Your task to perform on an android device: Open Youtube and go to the subscriptions tab Image 0: 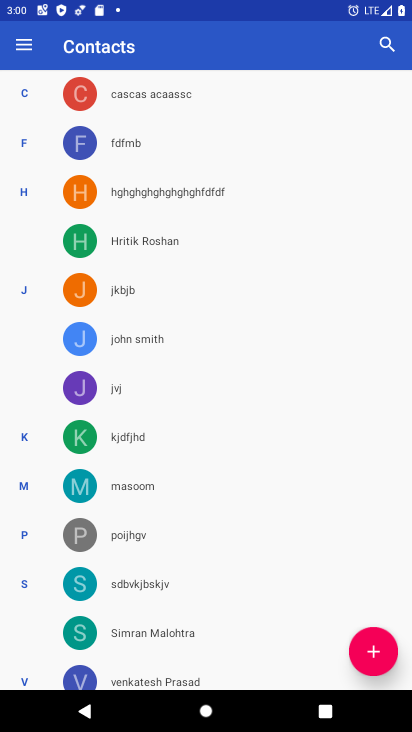
Step 0: press home button
Your task to perform on an android device: Open Youtube and go to the subscriptions tab Image 1: 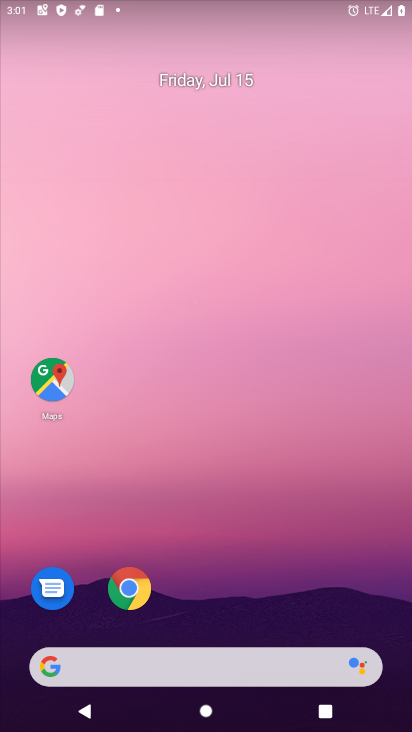
Step 1: drag from (216, 671) to (220, 124)
Your task to perform on an android device: Open Youtube and go to the subscriptions tab Image 2: 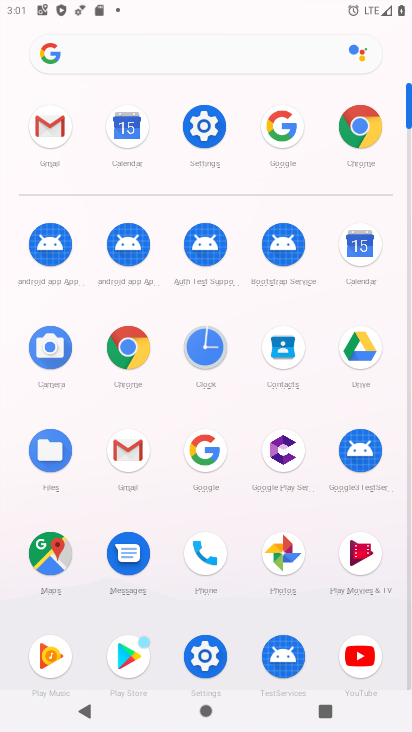
Step 2: click (359, 657)
Your task to perform on an android device: Open Youtube and go to the subscriptions tab Image 3: 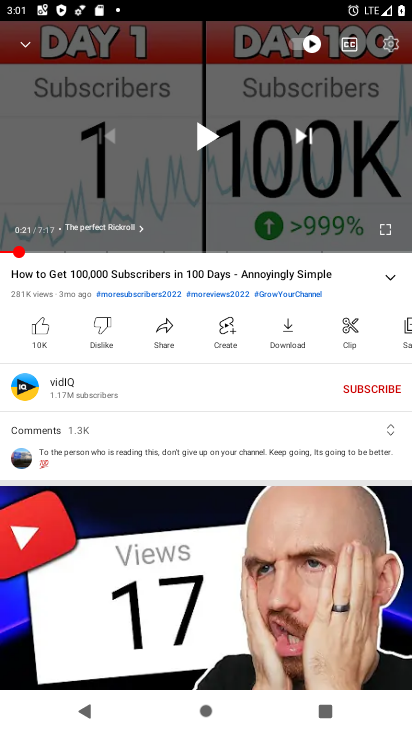
Step 3: press back button
Your task to perform on an android device: Open Youtube and go to the subscriptions tab Image 4: 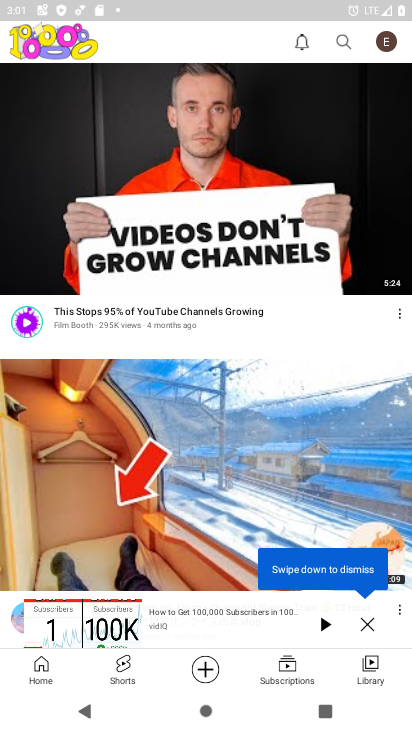
Step 4: click (287, 669)
Your task to perform on an android device: Open Youtube and go to the subscriptions tab Image 5: 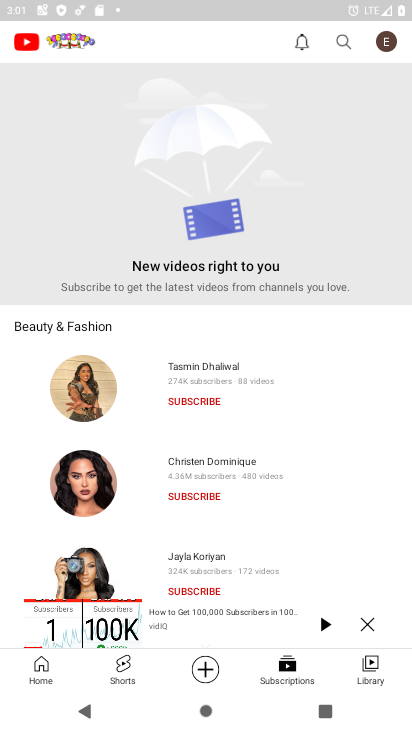
Step 5: task complete